Your task to perform on an android device: delete browsing data in the chrome app Image 0: 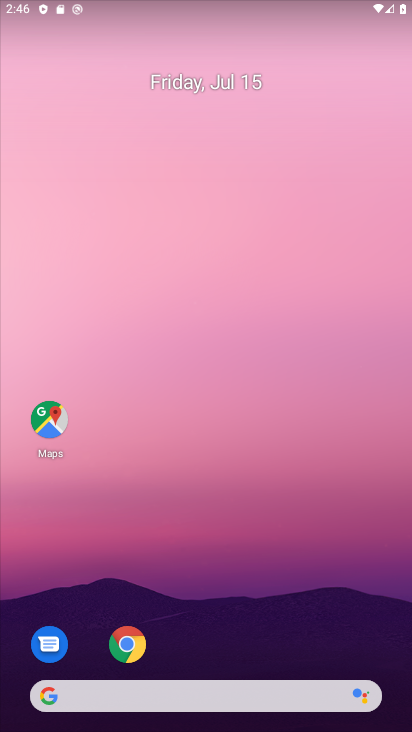
Step 0: drag from (244, 681) to (308, 0)
Your task to perform on an android device: delete browsing data in the chrome app Image 1: 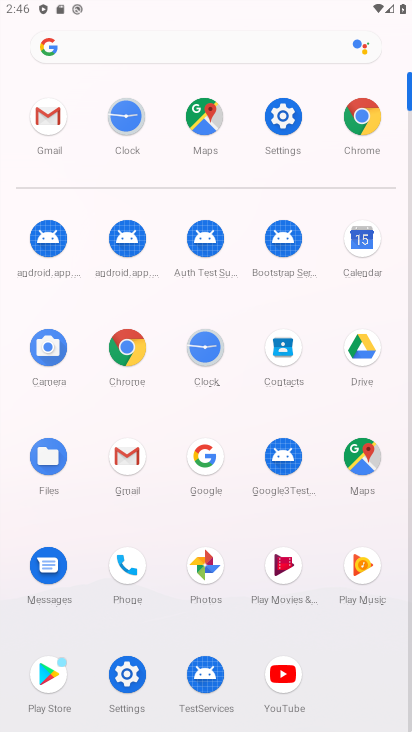
Step 1: click (128, 352)
Your task to perform on an android device: delete browsing data in the chrome app Image 2: 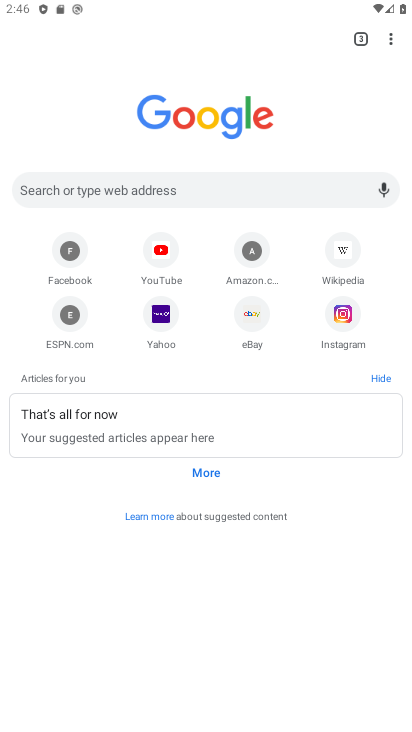
Step 2: click (388, 42)
Your task to perform on an android device: delete browsing data in the chrome app Image 3: 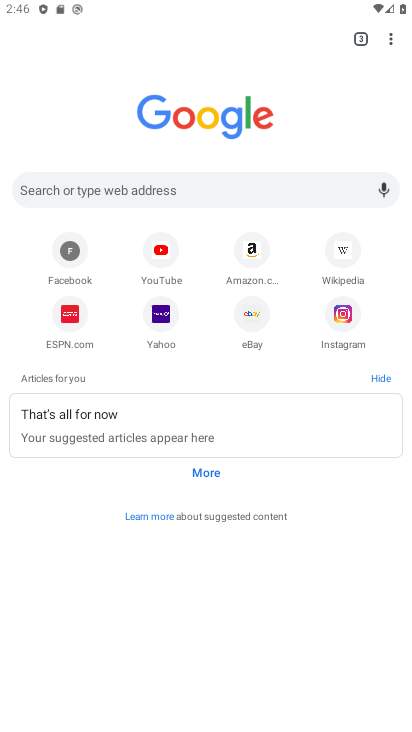
Step 3: drag from (392, 28) to (289, 328)
Your task to perform on an android device: delete browsing data in the chrome app Image 4: 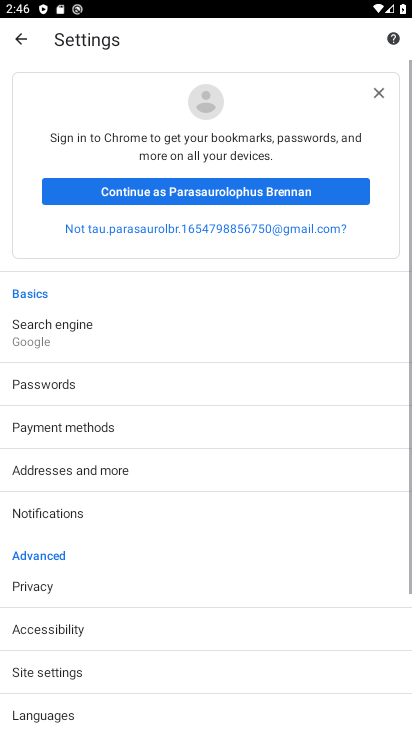
Step 4: drag from (210, 630) to (235, 134)
Your task to perform on an android device: delete browsing data in the chrome app Image 5: 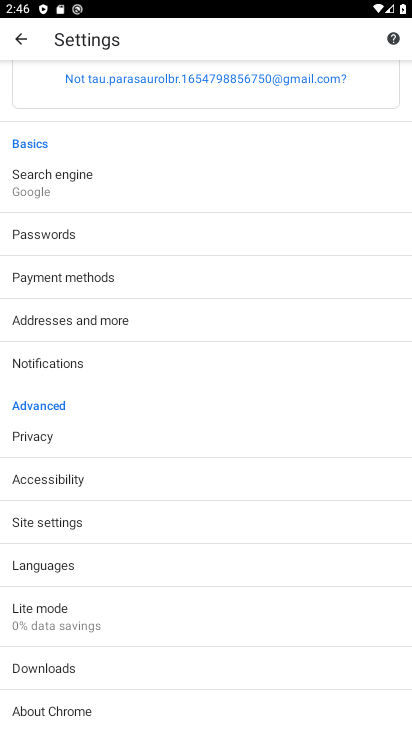
Step 5: click (80, 439)
Your task to perform on an android device: delete browsing data in the chrome app Image 6: 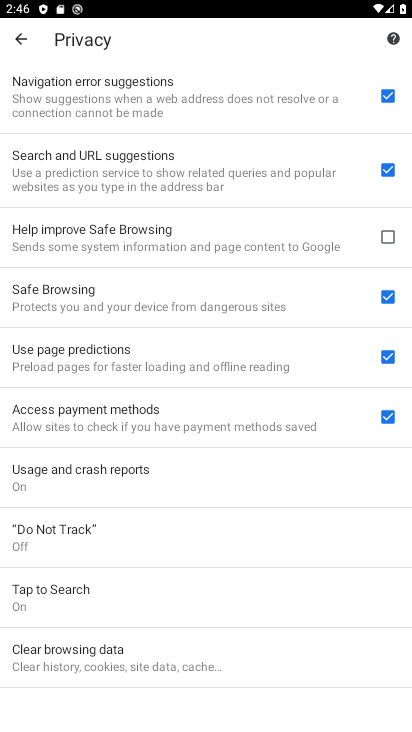
Step 6: click (154, 660)
Your task to perform on an android device: delete browsing data in the chrome app Image 7: 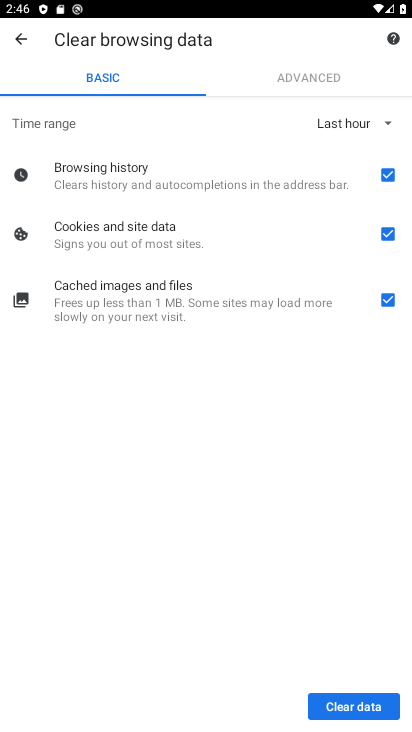
Step 7: click (343, 713)
Your task to perform on an android device: delete browsing data in the chrome app Image 8: 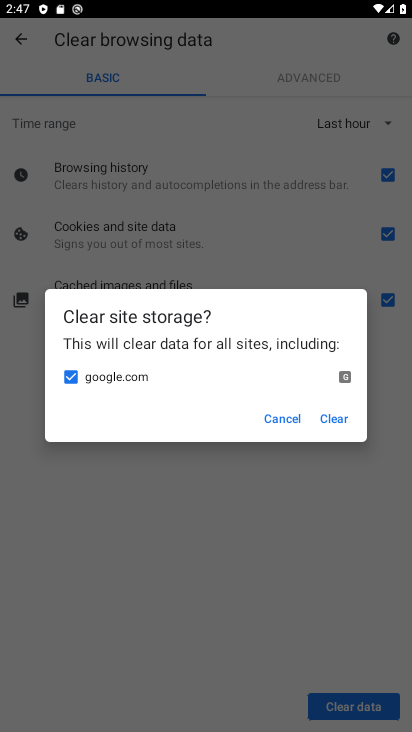
Step 8: click (341, 420)
Your task to perform on an android device: delete browsing data in the chrome app Image 9: 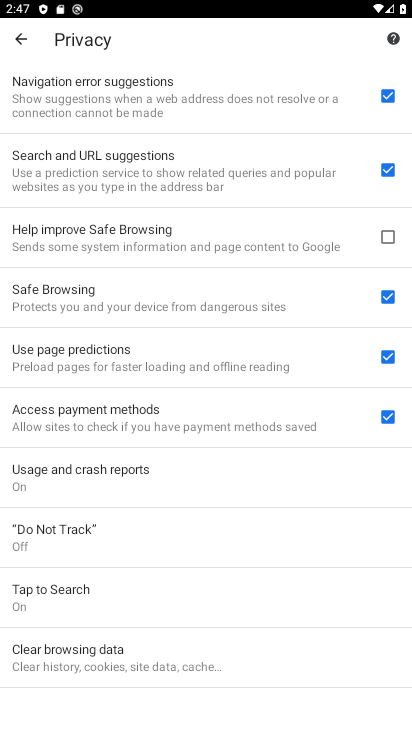
Step 9: task complete